Your task to perform on an android device: Go to Yahoo.com Image 0: 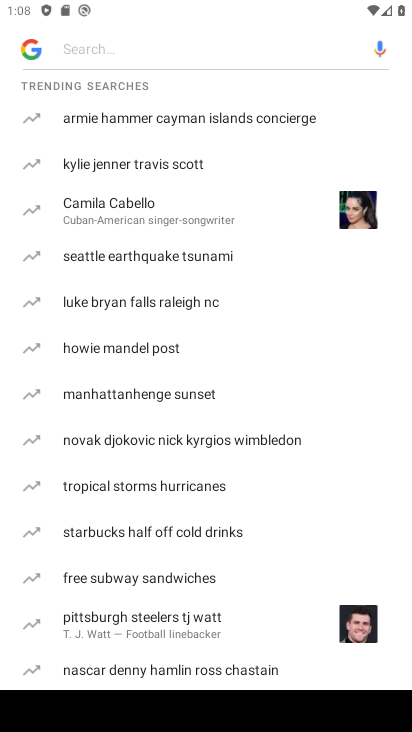
Step 0: press home button
Your task to perform on an android device: Go to Yahoo.com Image 1: 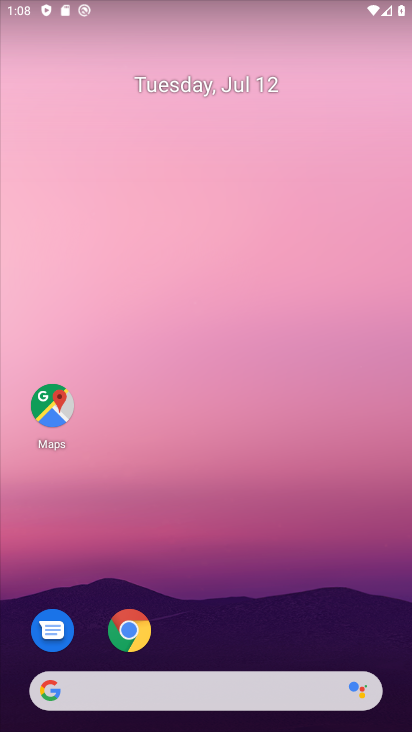
Step 1: click (135, 640)
Your task to perform on an android device: Go to Yahoo.com Image 2: 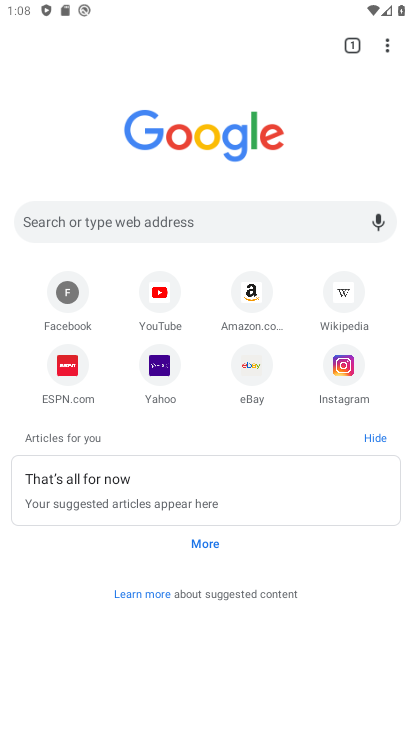
Step 2: click (161, 377)
Your task to perform on an android device: Go to Yahoo.com Image 3: 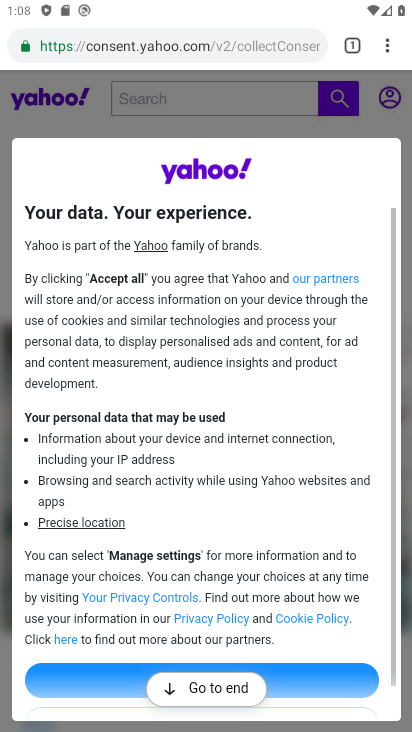
Step 3: click (238, 673)
Your task to perform on an android device: Go to Yahoo.com Image 4: 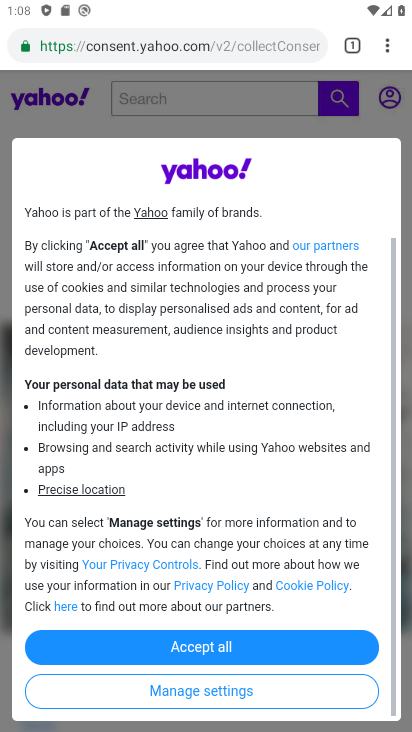
Step 4: click (221, 642)
Your task to perform on an android device: Go to Yahoo.com Image 5: 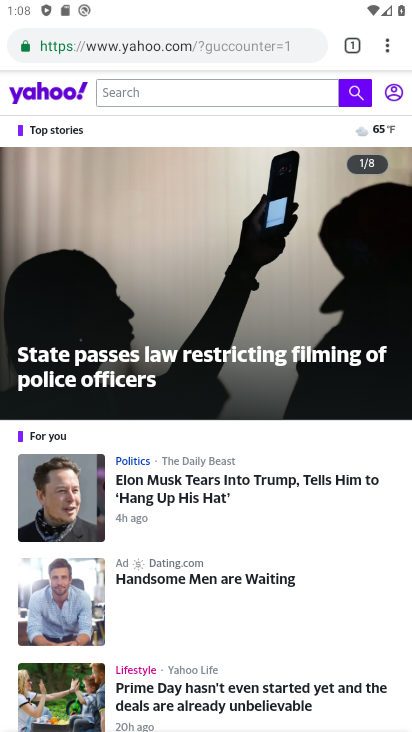
Step 5: task complete